Your task to perform on an android device: Is it going to rain tomorrow? Image 0: 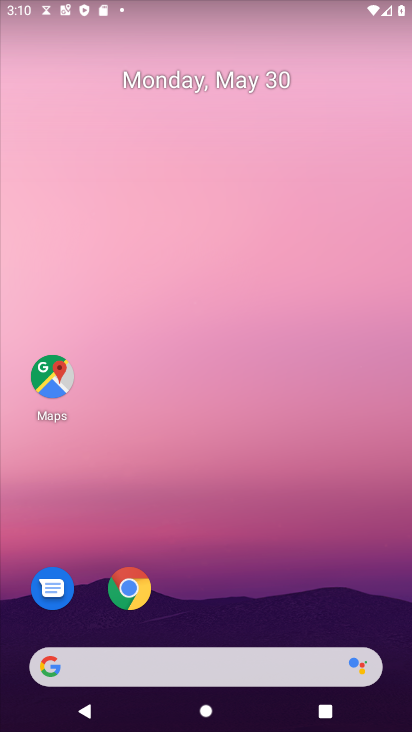
Step 0: drag from (275, 476) to (265, 25)
Your task to perform on an android device: Is it going to rain tomorrow? Image 1: 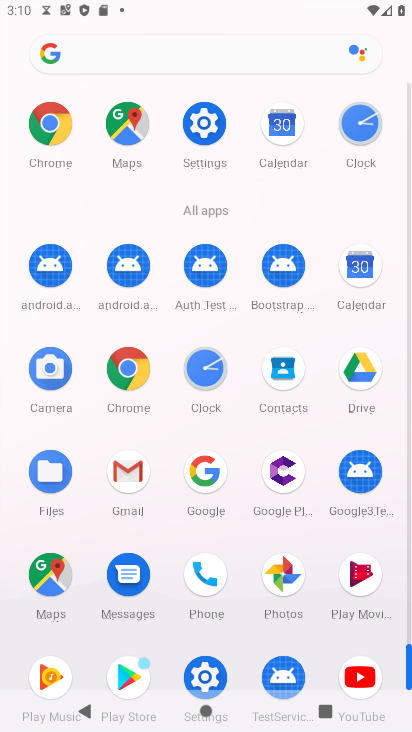
Step 1: click (129, 366)
Your task to perform on an android device: Is it going to rain tomorrow? Image 2: 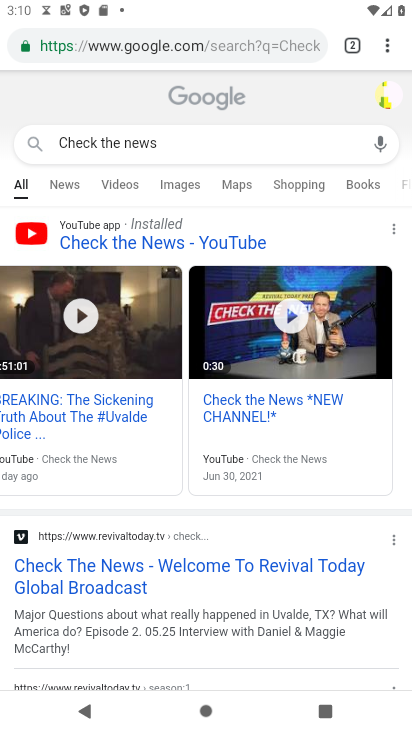
Step 2: click (116, 47)
Your task to perform on an android device: Is it going to rain tomorrow? Image 3: 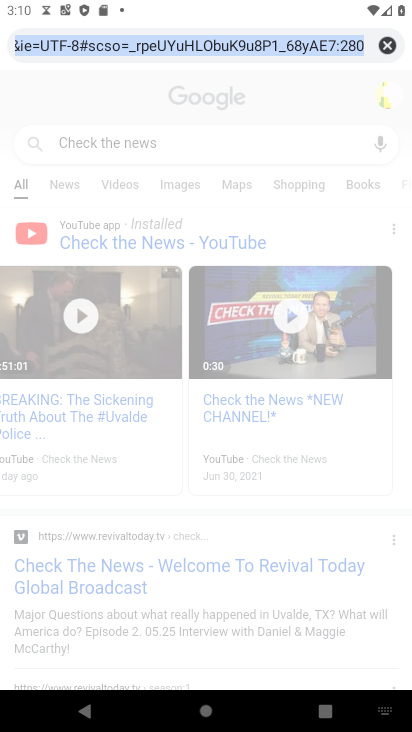
Step 3: click (382, 46)
Your task to perform on an android device: Is it going to rain tomorrow? Image 4: 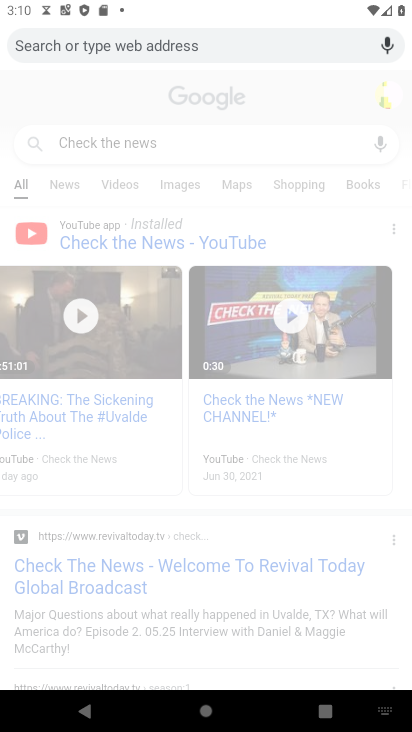
Step 4: type "Is it going to rain tomorrow?"
Your task to perform on an android device: Is it going to rain tomorrow? Image 5: 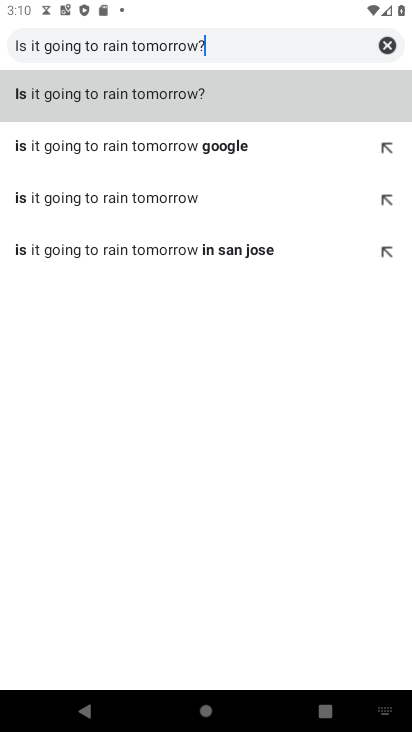
Step 5: type ""
Your task to perform on an android device: Is it going to rain tomorrow? Image 6: 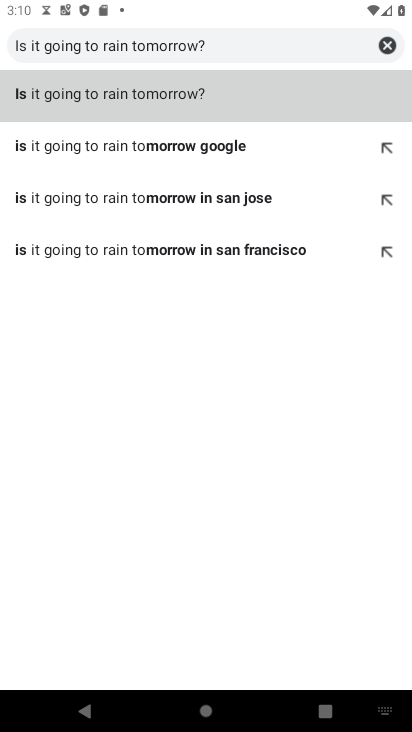
Step 6: click (171, 102)
Your task to perform on an android device: Is it going to rain tomorrow? Image 7: 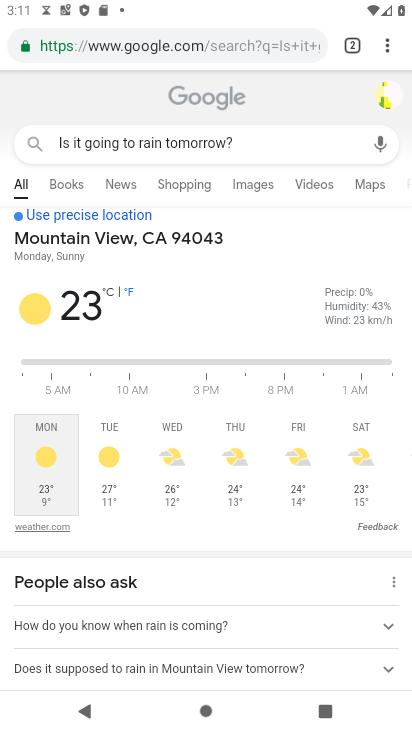
Step 7: task complete